Your task to perform on an android device: clear all cookies in the chrome app Image 0: 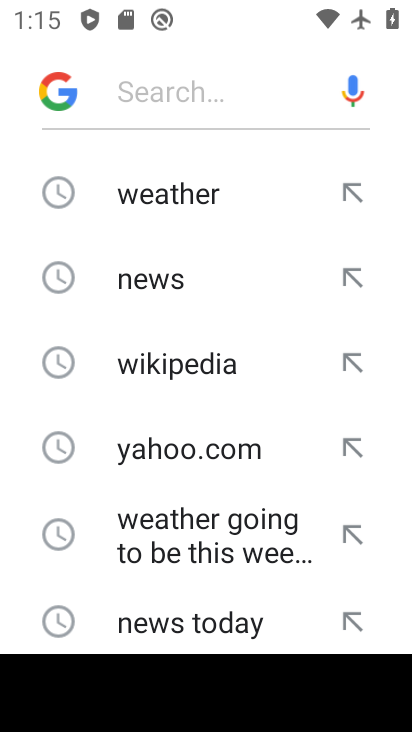
Step 0: press home button
Your task to perform on an android device: clear all cookies in the chrome app Image 1: 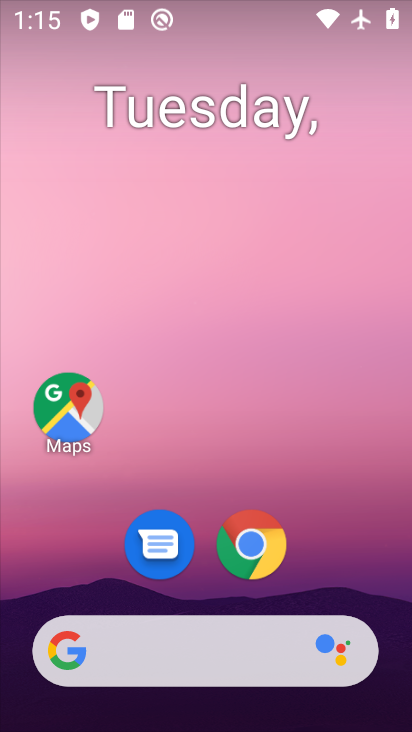
Step 1: click (253, 544)
Your task to perform on an android device: clear all cookies in the chrome app Image 2: 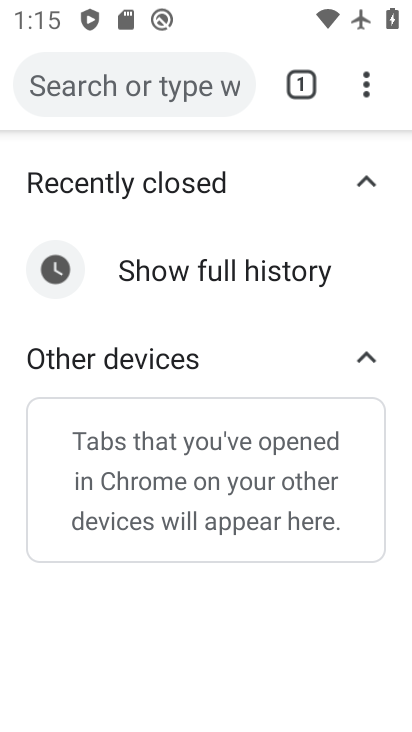
Step 2: click (367, 90)
Your task to perform on an android device: clear all cookies in the chrome app Image 3: 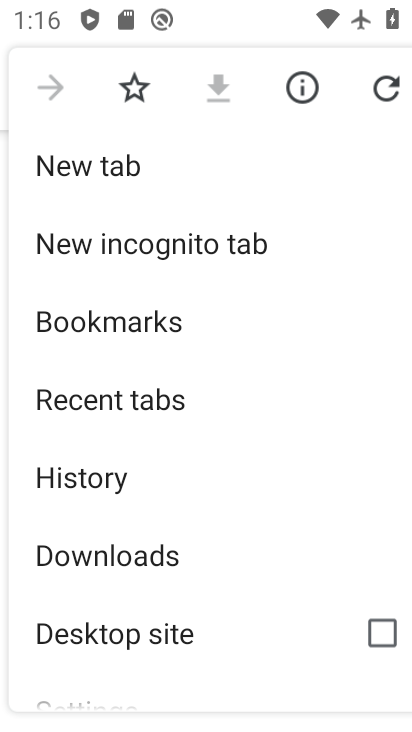
Step 3: click (60, 469)
Your task to perform on an android device: clear all cookies in the chrome app Image 4: 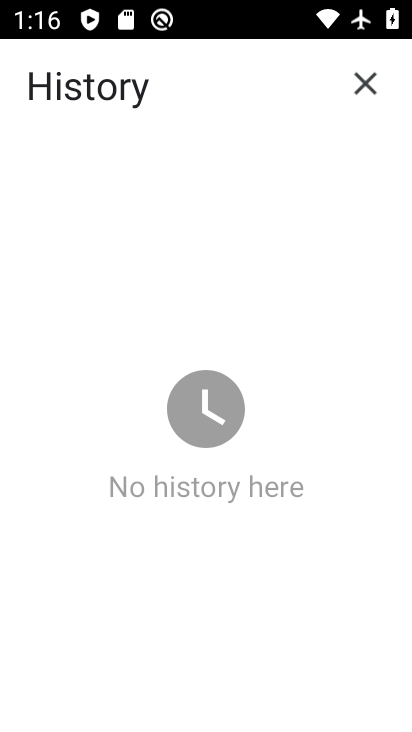
Step 4: task complete